Your task to perform on an android device: empty trash in google photos Image 0: 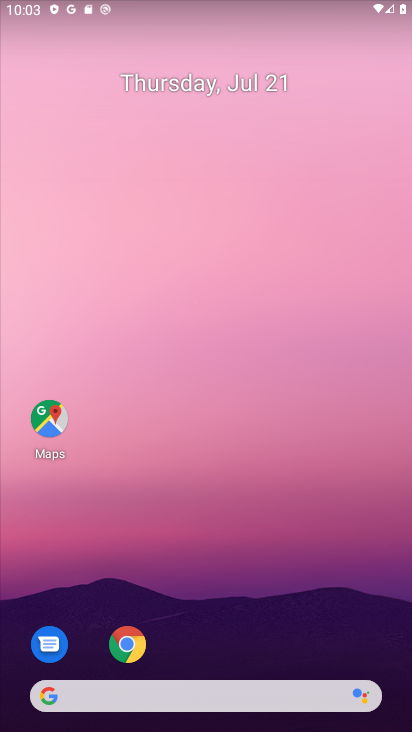
Step 0: drag from (220, 649) to (249, 284)
Your task to perform on an android device: empty trash in google photos Image 1: 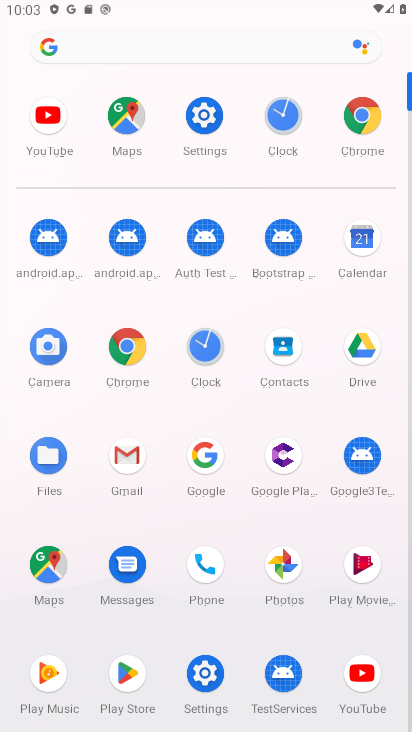
Step 1: click (283, 561)
Your task to perform on an android device: empty trash in google photos Image 2: 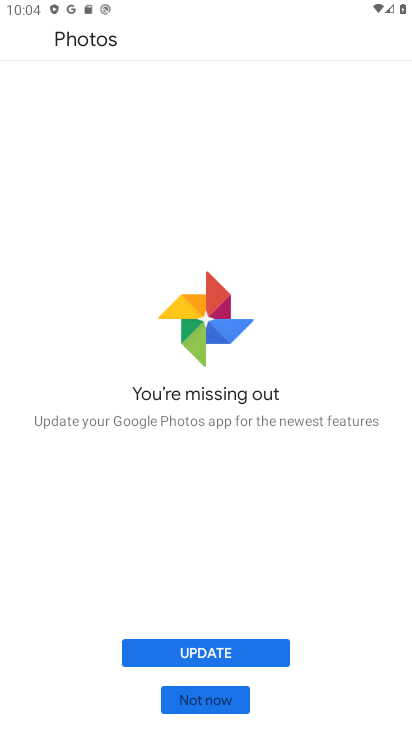
Step 2: click (202, 650)
Your task to perform on an android device: empty trash in google photos Image 3: 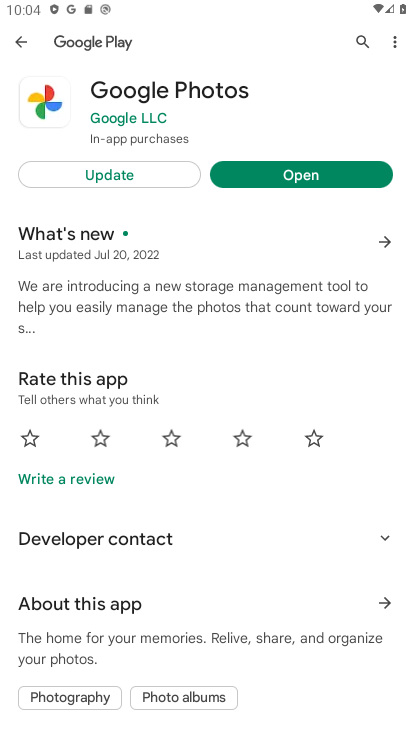
Step 3: click (105, 182)
Your task to perform on an android device: empty trash in google photos Image 4: 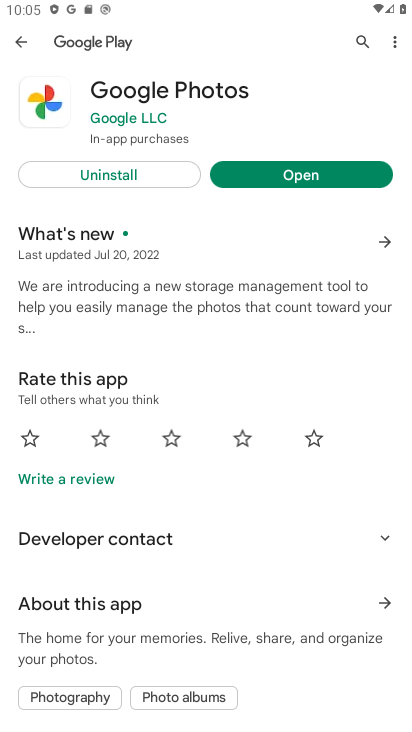
Step 4: click (309, 174)
Your task to perform on an android device: empty trash in google photos Image 5: 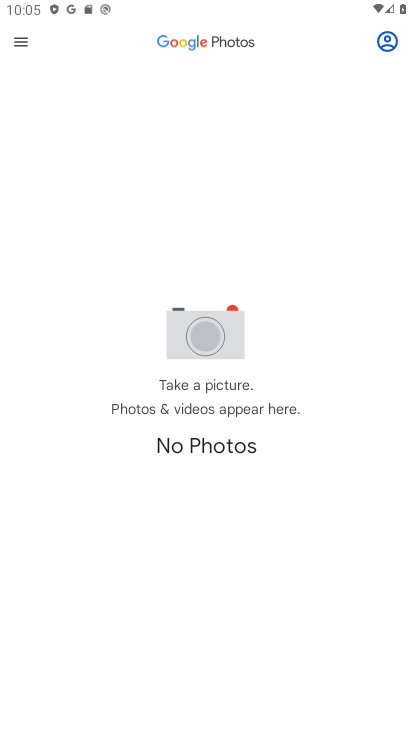
Step 5: click (25, 43)
Your task to perform on an android device: empty trash in google photos Image 6: 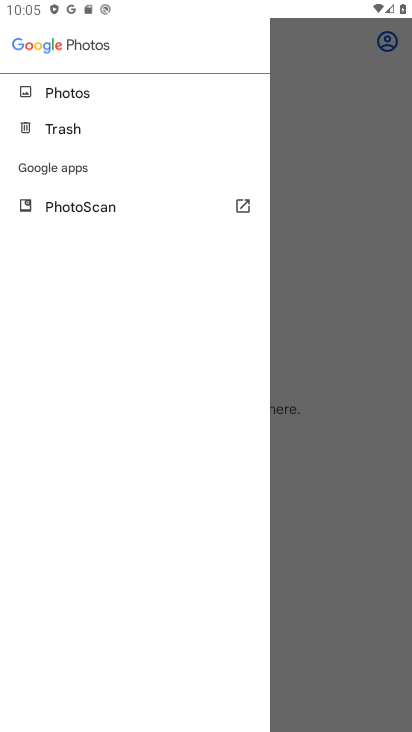
Step 6: click (65, 130)
Your task to perform on an android device: empty trash in google photos Image 7: 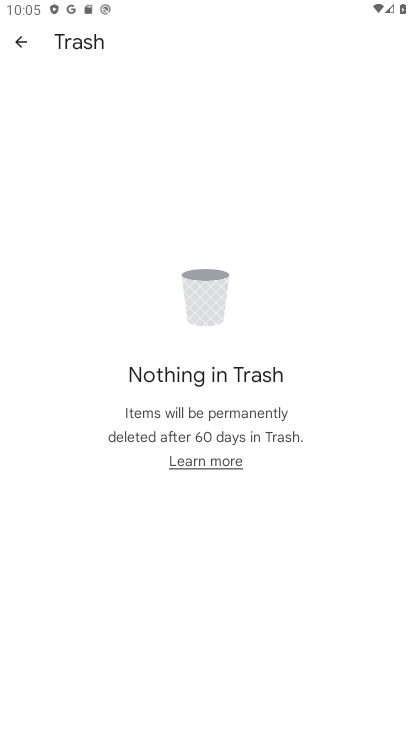
Step 7: task complete